Your task to perform on an android device: toggle data saver in the chrome app Image 0: 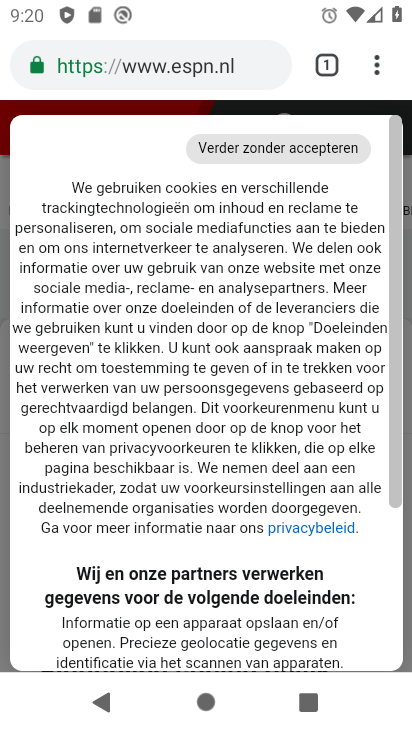
Step 0: click (374, 72)
Your task to perform on an android device: toggle data saver in the chrome app Image 1: 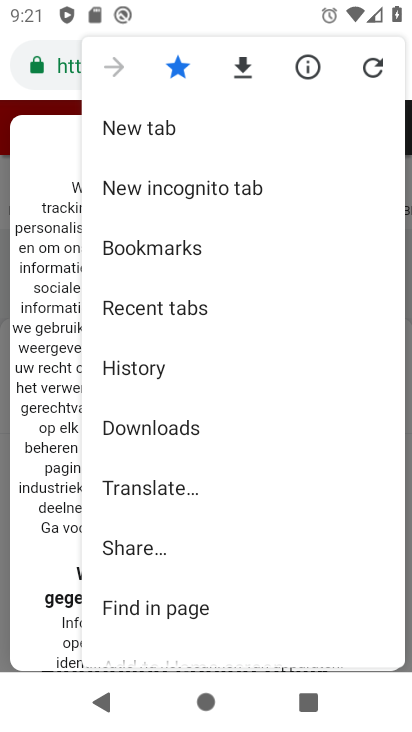
Step 1: drag from (222, 577) to (273, 193)
Your task to perform on an android device: toggle data saver in the chrome app Image 2: 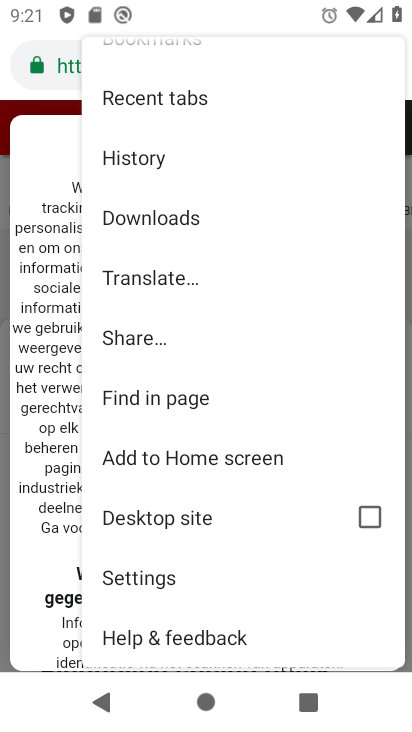
Step 2: click (137, 575)
Your task to perform on an android device: toggle data saver in the chrome app Image 3: 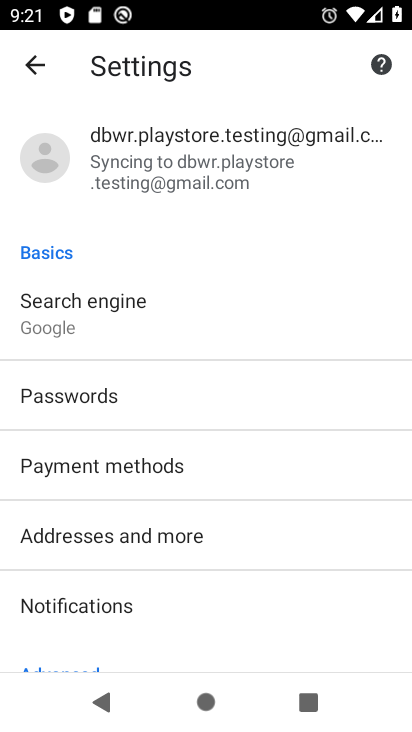
Step 3: drag from (230, 606) to (268, 278)
Your task to perform on an android device: toggle data saver in the chrome app Image 4: 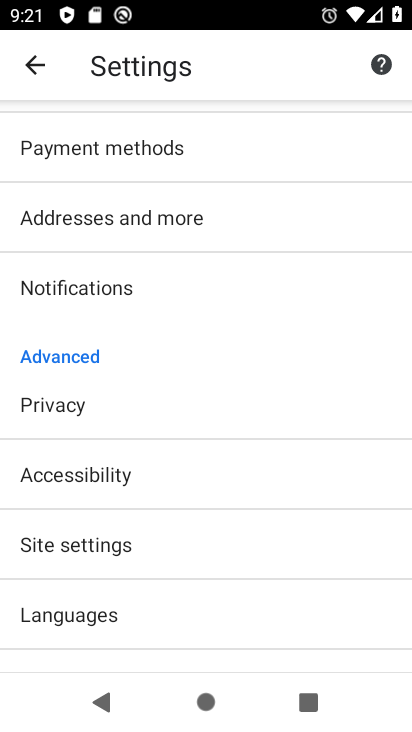
Step 4: drag from (194, 629) to (255, 217)
Your task to perform on an android device: toggle data saver in the chrome app Image 5: 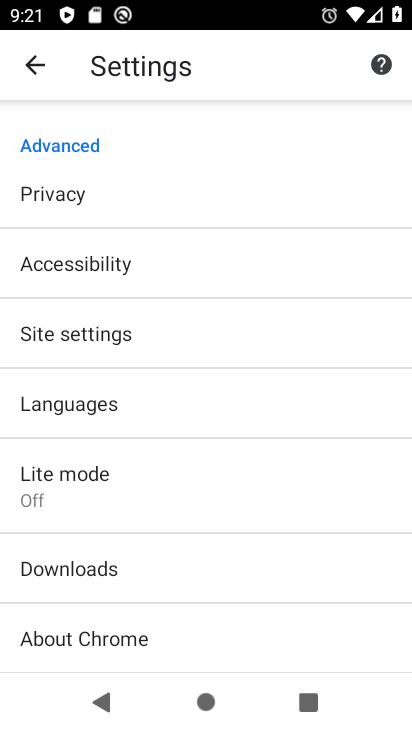
Step 5: click (40, 480)
Your task to perform on an android device: toggle data saver in the chrome app Image 6: 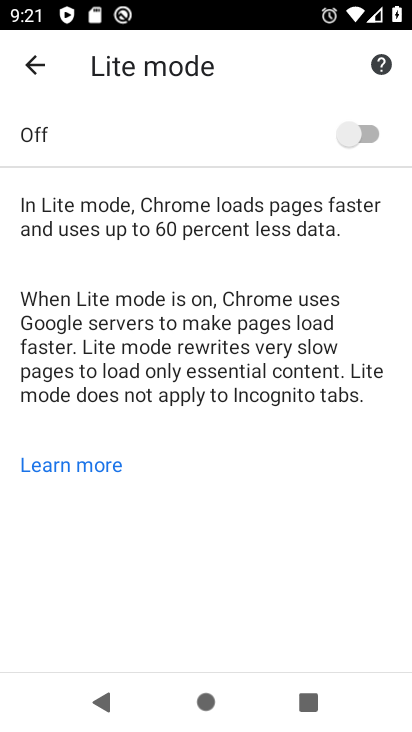
Step 6: click (366, 134)
Your task to perform on an android device: toggle data saver in the chrome app Image 7: 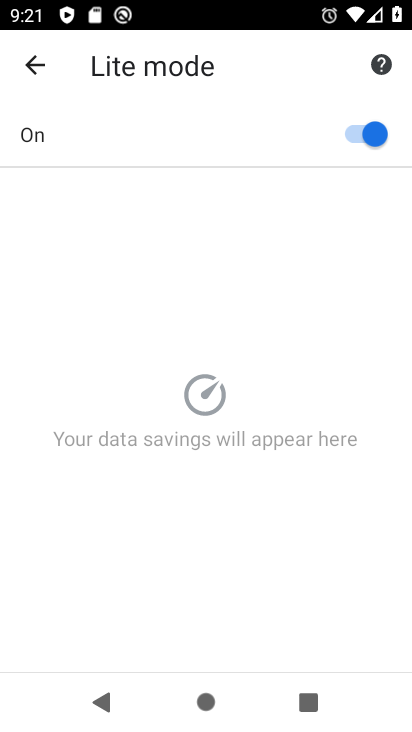
Step 7: task complete